Your task to perform on an android device: Go to Reddit.com Image 0: 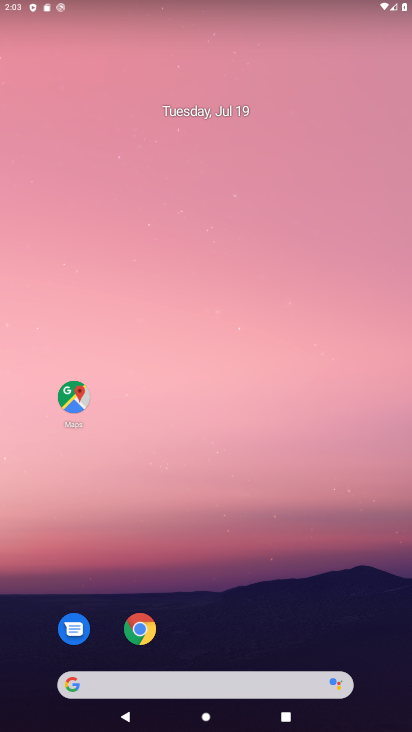
Step 0: click (152, 624)
Your task to perform on an android device: Go to Reddit.com Image 1: 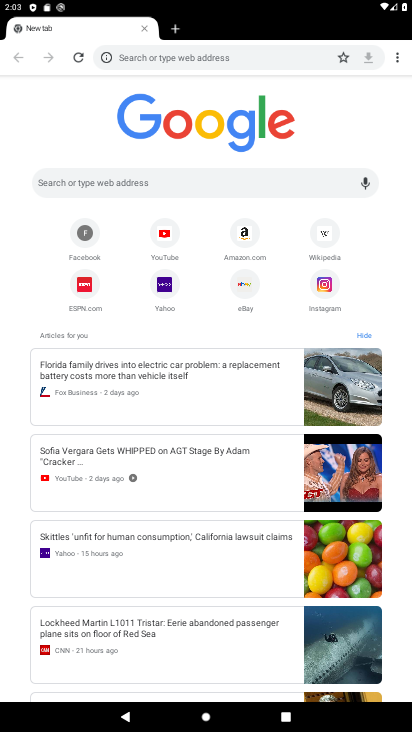
Step 1: click (220, 183)
Your task to perform on an android device: Go to Reddit.com Image 2: 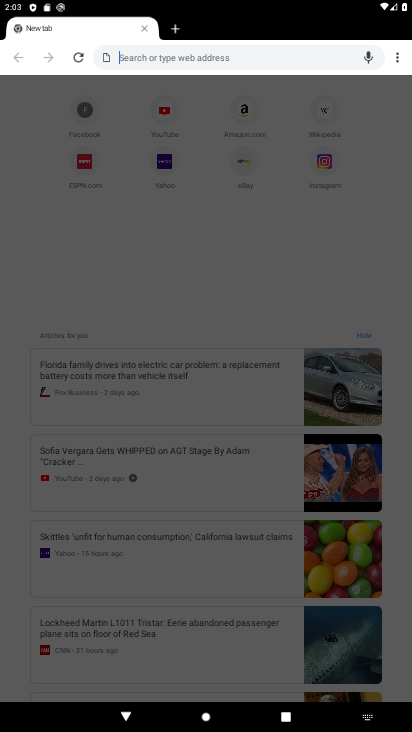
Step 2: type "Reddit.com"
Your task to perform on an android device: Go to Reddit.com Image 3: 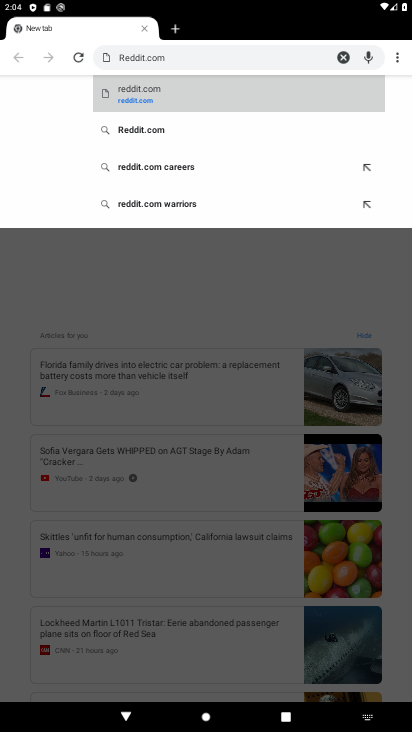
Step 3: click (187, 102)
Your task to perform on an android device: Go to Reddit.com Image 4: 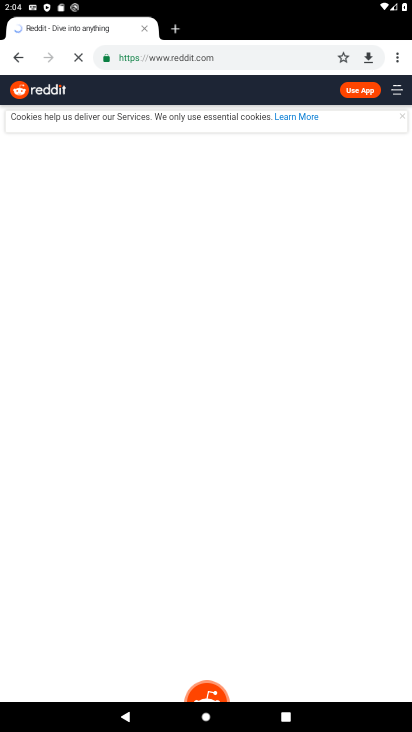
Step 4: task complete